Your task to perform on an android device: What's on my calendar today? Image 0: 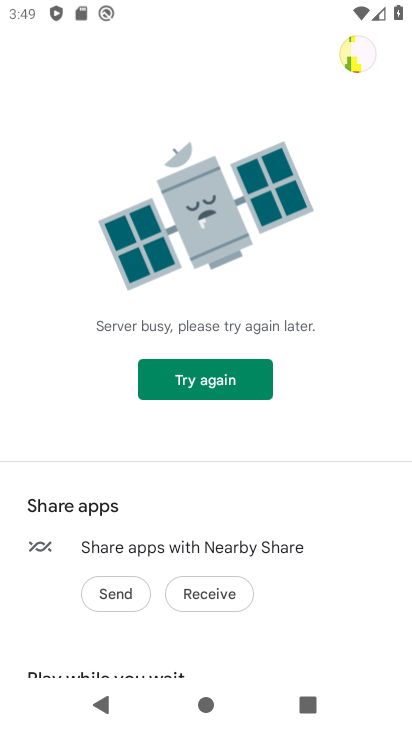
Step 0: press back button
Your task to perform on an android device: What's on my calendar today? Image 1: 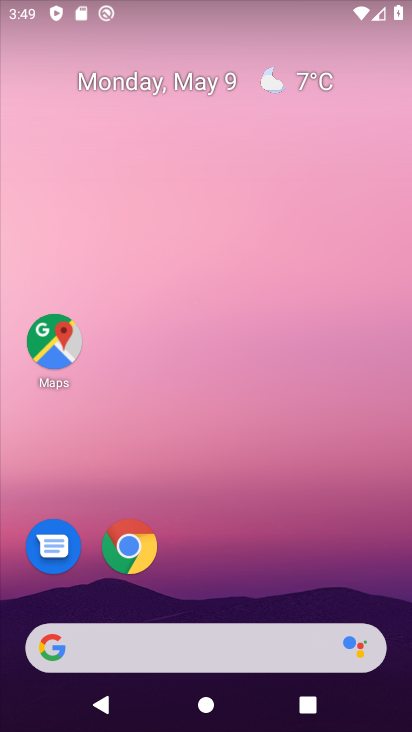
Step 1: drag from (202, 624) to (292, 180)
Your task to perform on an android device: What's on my calendar today? Image 2: 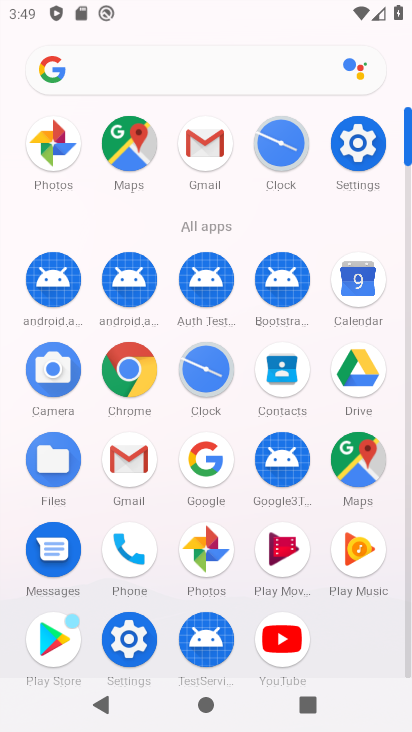
Step 2: click (361, 286)
Your task to perform on an android device: What's on my calendar today? Image 3: 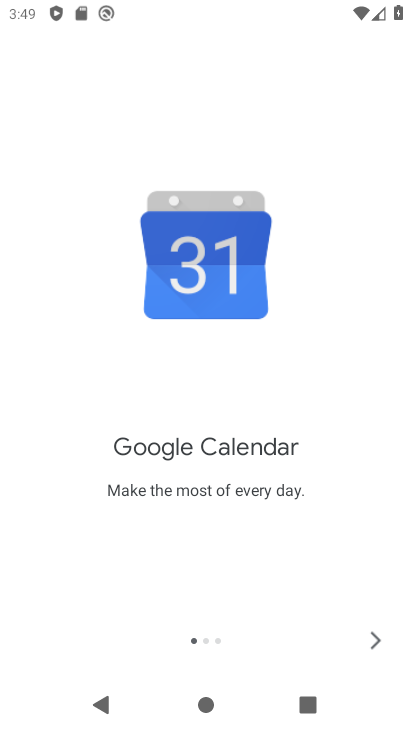
Step 3: click (375, 649)
Your task to perform on an android device: What's on my calendar today? Image 4: 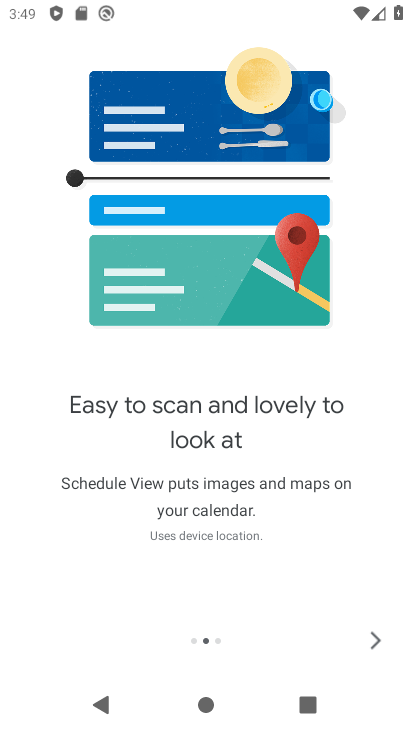
Step 4: click (375, 649)
Your task to perform on an android device: What's on my calendar today? Image 5: 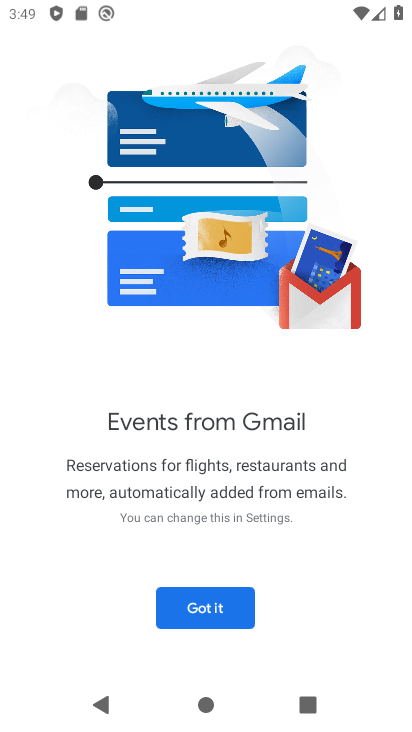
Step 5: click (224, 629)
Your task to perform on an android device: What's on my calendar today? Image 6: 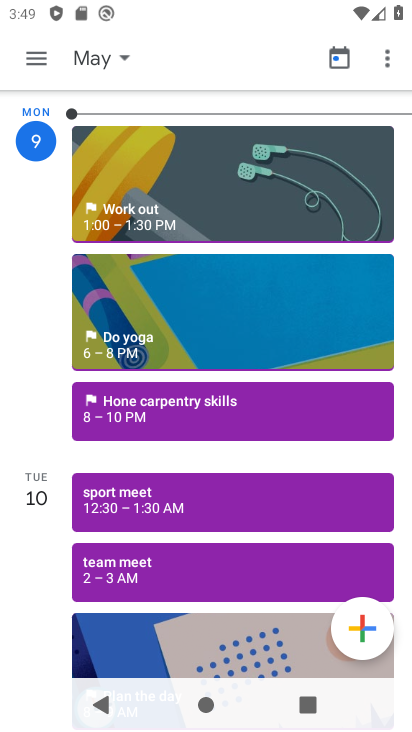
Step 6: task complete